Your task to perform on an android device: toggle wifi Image 0: 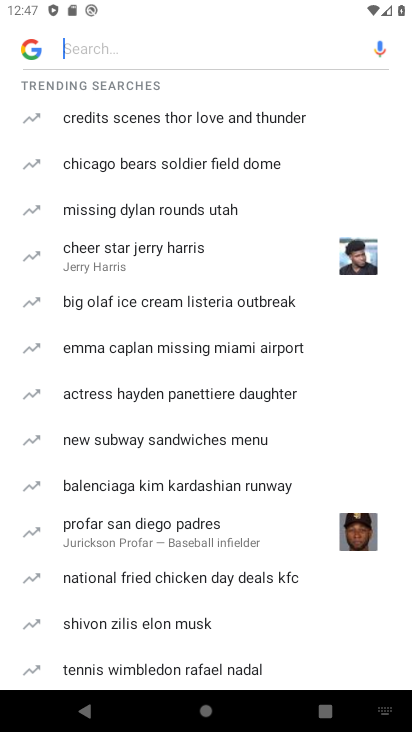
Step 0: press home button
Your task to perform on an android device: toggle wifi Image 1: 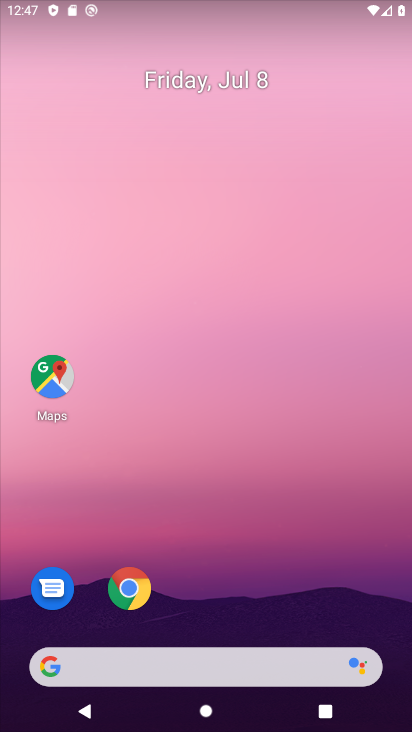
Step 1: drag from (240, 610) to (233, 55)
Your task to perform on an android device: toggle wifi Image 2: 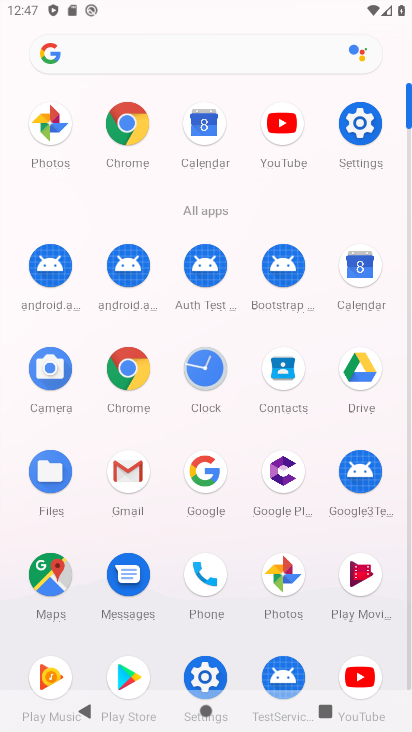
Step 2: click (355, 147)
Your task to perform on an android device: toggle wifi Image 3: 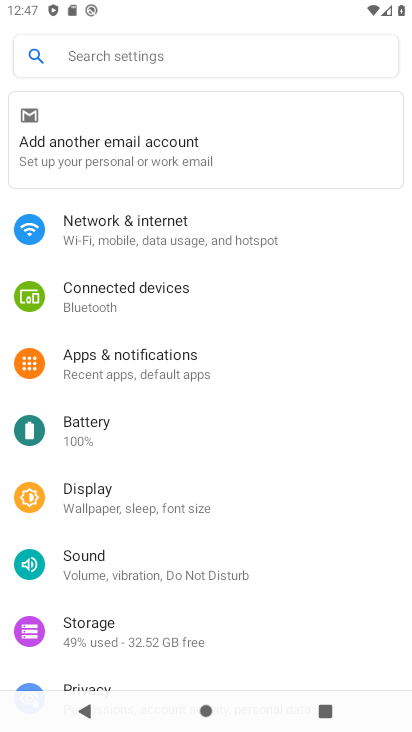
Step 3: click (209, 237)
Your task to perform on an android device: toggle wifi Image 4: 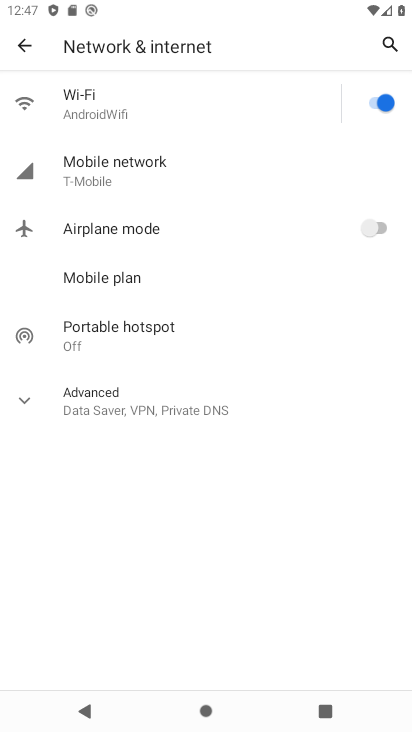
Step 4: click (369, 105)
Your task to perform on an android device: toggle wifi Image 5: 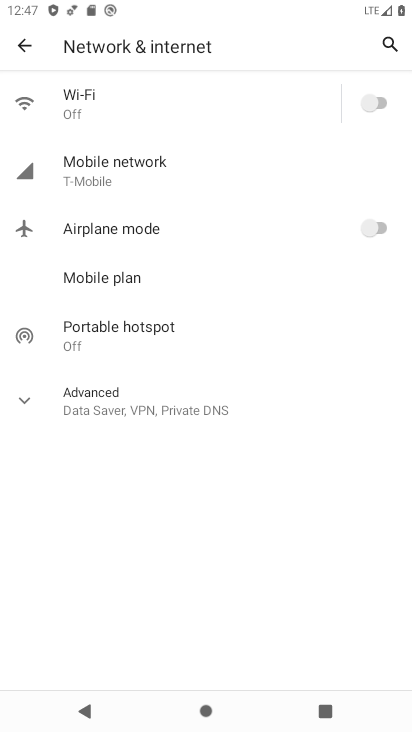
Step 5: task complete